Your task to perform on an android device: turn off wifi Image 0: 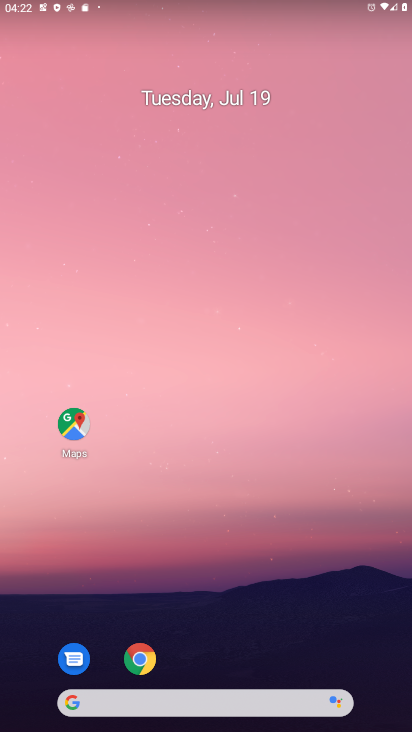
Step 0: drag from (327, 46) to (308, 444)
Your task to perform on an android device: turn off wifi Image 1: 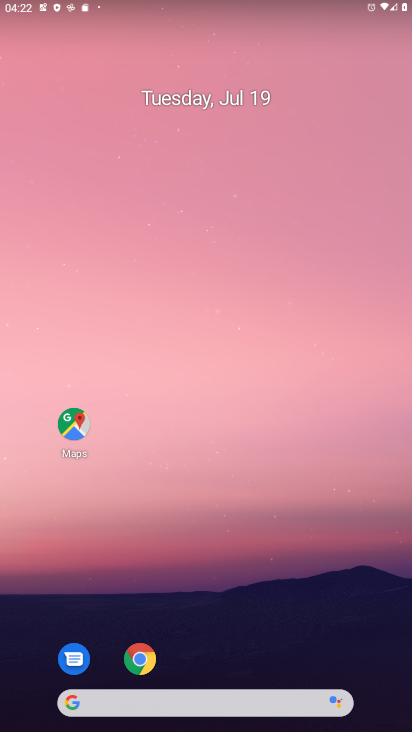
Step 1: drag from (382, 0) to (292, 722)
Your task to perform on an android device: turn off wifi Image 2: 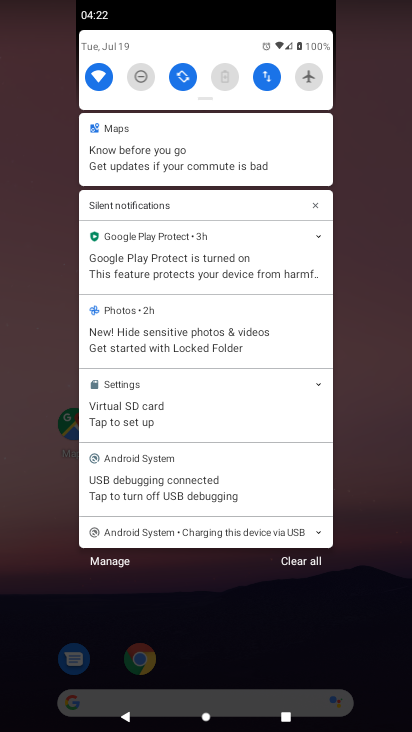
Step 2: click (108, 71)
Your task to perform on an android device: turn off wifi Image 3: 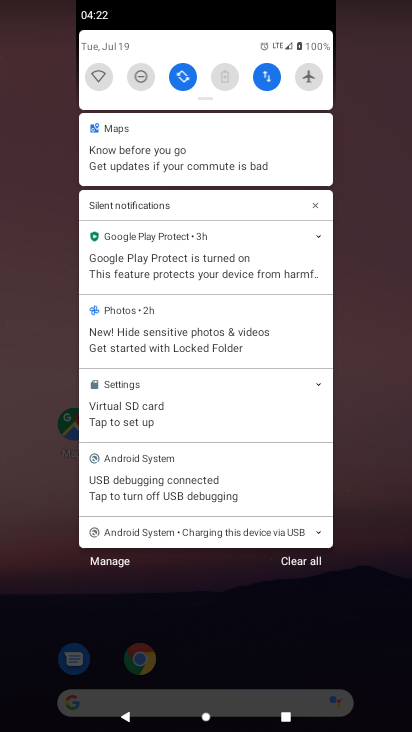
Step 3: task complete